Your task to perform on an android device: Search for Italian restaurants on Maps Image 0: 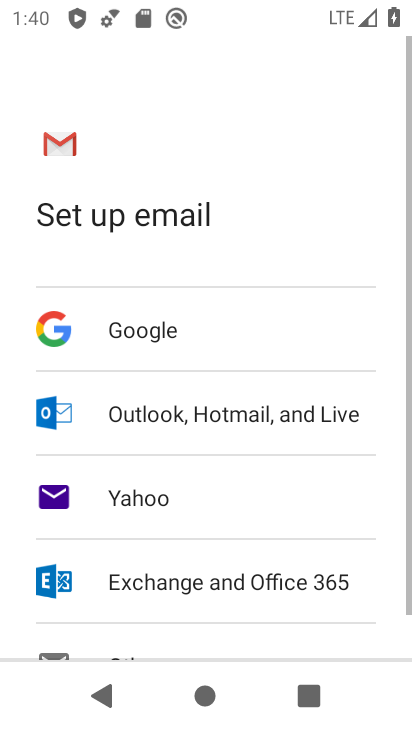
Step 0: press home button
Your task to perform on an android device: Search for Italian restaurants on Maps Image 1: 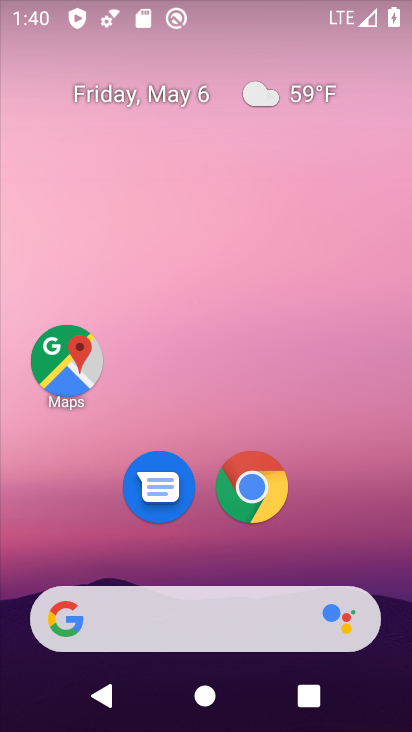
Step 1: drag from (217, 578) to (284, 132)
Your task to perform on an android device: Search for Italian restaurants on Maps Image 2: 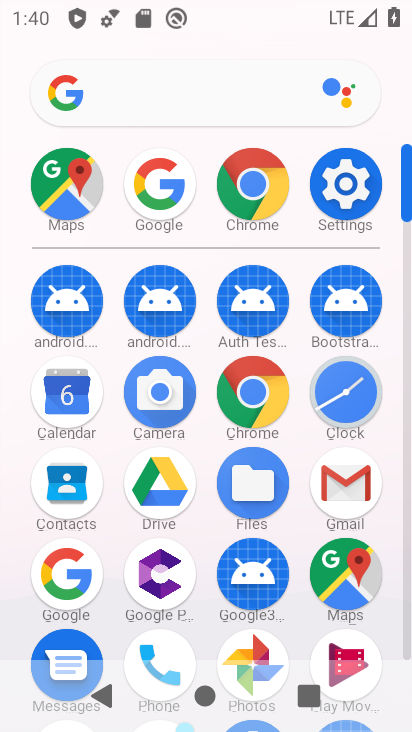
Step 2: click (71, 182)
Your task to perform on an android device: Search for Italian restaurants on Maps Image 3: 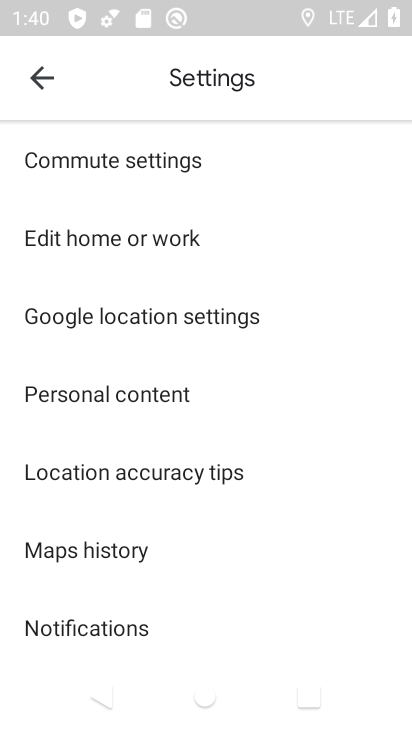
Step 3: click (55, 92)
Your task to perform on an android device: Search for Italian restaurants on Maps Image 4: 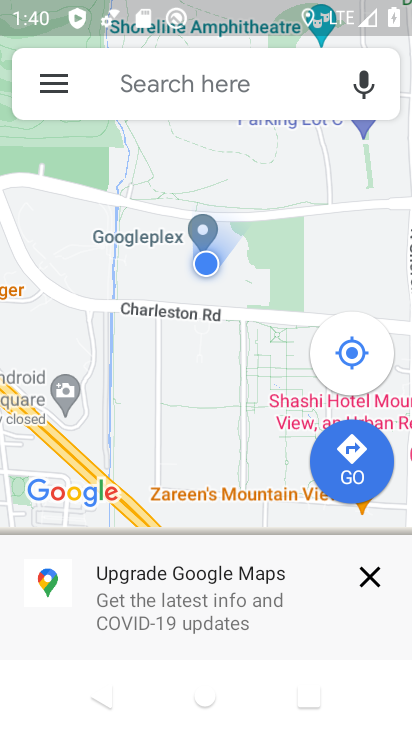
Step 4: click (132, 83)
Your task to perform on an android device: Search for Italian restaurants on Maps Image 5: 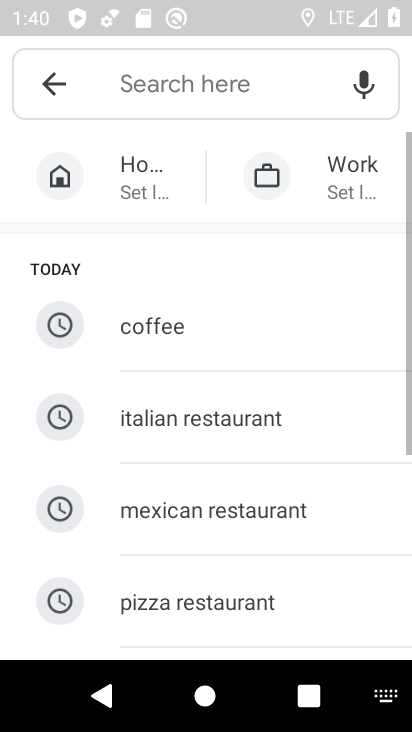
Step 5: click (192, 428)
Your task to perform on an android device: Search for Italian restaurants on Maps Image 6: 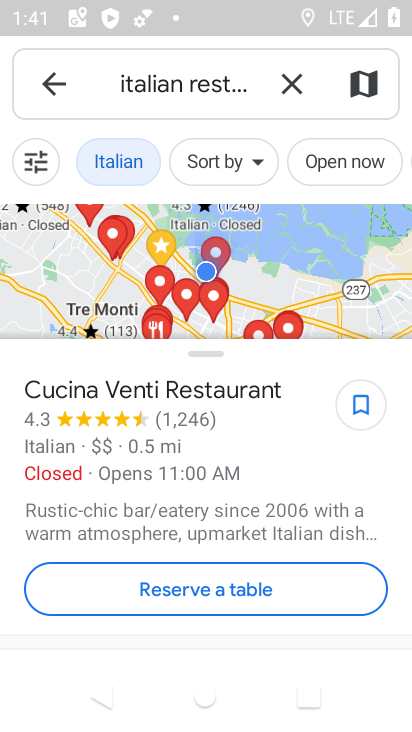
Step 6: task complete